Your task to perform on an android device: change timer sound Image 0: 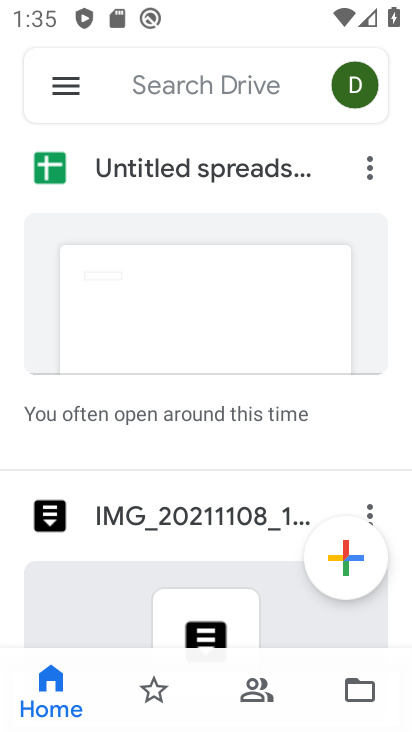
Step 0: press home button
Your task to perform on an android device: change timer sound Image 1: 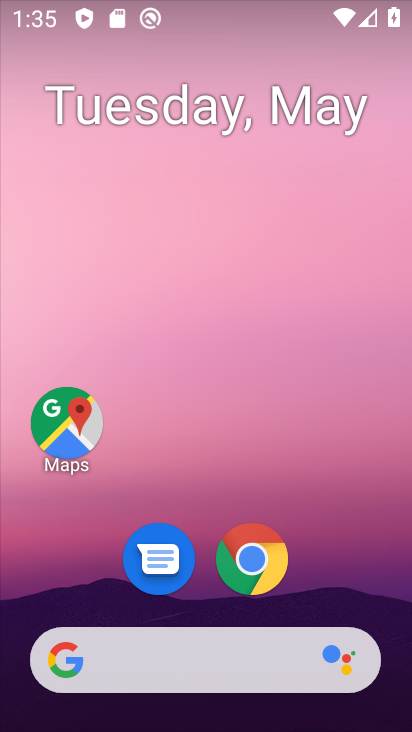
Step 1: drag from (386, 637) to (270, 74)
Your task to perform on an android device: change timer sound Image 2: 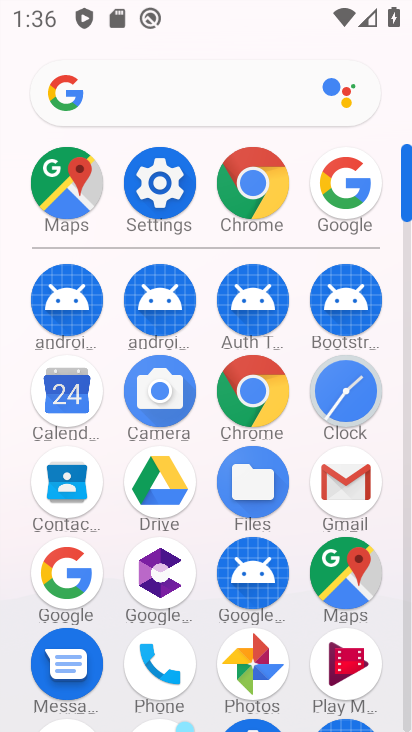
Step 2: click (344, 406)
Your task to perform on an android device: change timer sound Image 3: 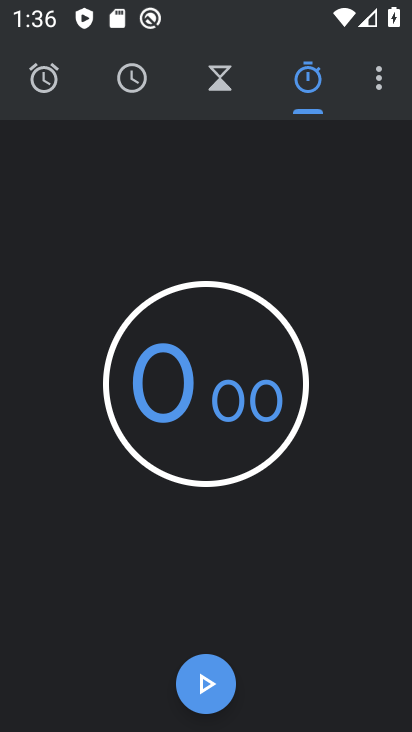
Step 3: click (385, 61)
Your task to perform on an android device: change timer sound Image 4: 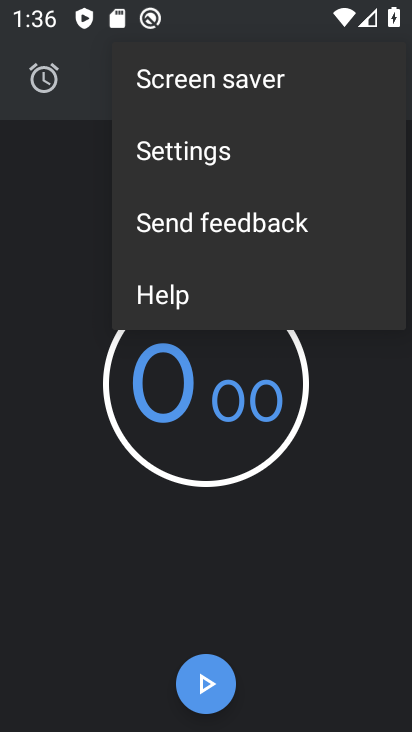
Step 4: click (288, 161)
Your task to perform on an android device: change timer sound Image 5: 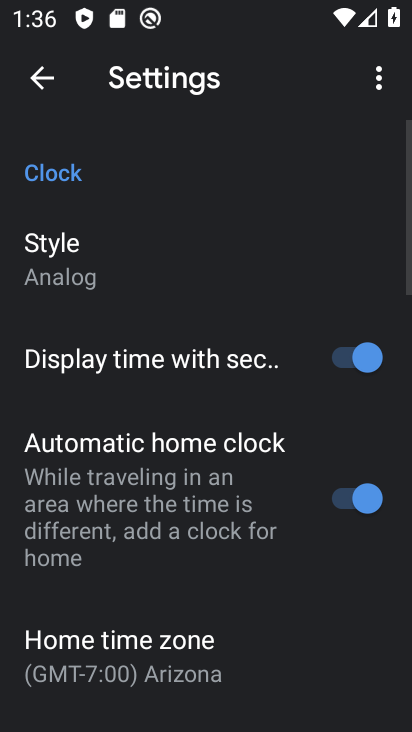
Step 5: drag from (201, 599) to (238, 88)
Your task to perform on an android device: change timer sound Image 6: 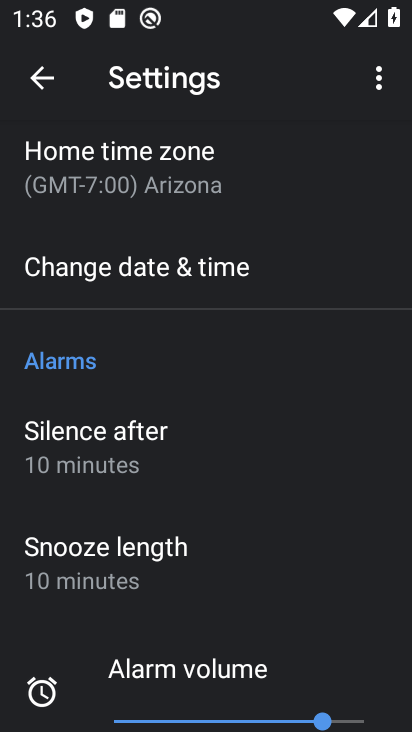
Step 6: drag from (189, 603) to (234, 123)
Your task to perform on an android device: change timer sound Image 7: 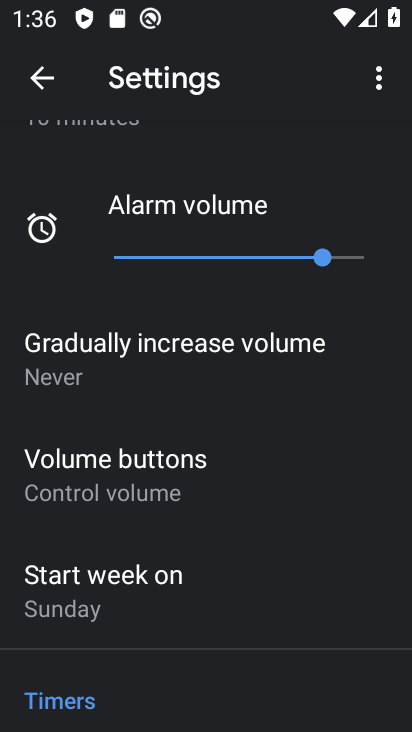
Step 7: drag from (215, 603) to (187, 190)
Your task to perform on an android device: change timer sound Image 8: 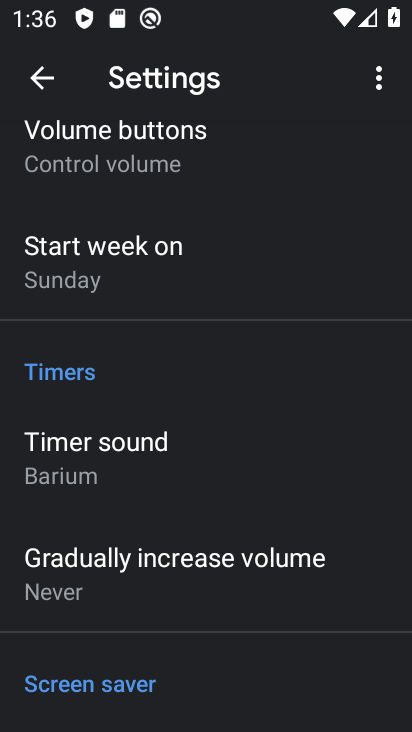
Step 8: click (202, 438)
Your task to perform on an android device: change timer sound Image 9: 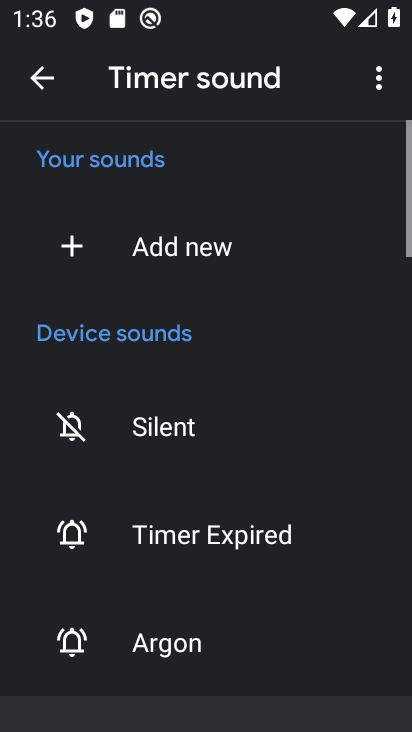
Step 9: click (176, 655)
Your task to perform on an android device: change timer sound Image 10: 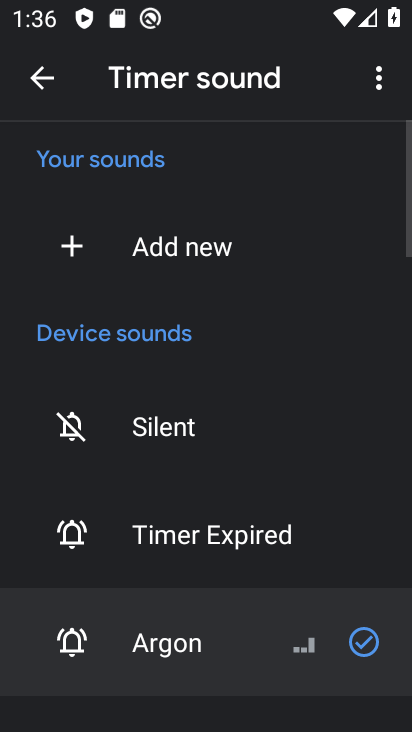
Step 10: task complete